Your task to perform on an android device: Open Google Chrome and click the shortcut for Amazon.com Image 0: 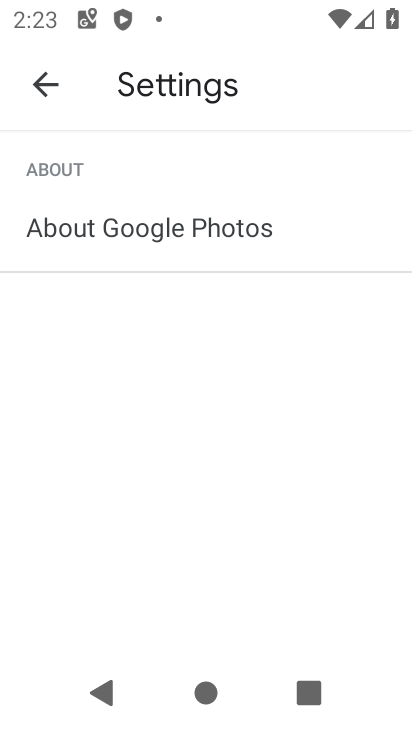
Step 0: press home button
Your task to perform on an android device: Open Google Chrome and click the shortcut for Amazon.com Image 1: 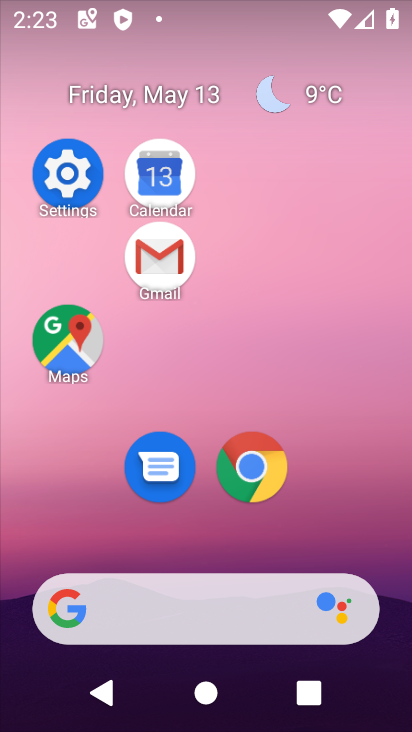
Step 1: click (267, 455)
Your task to perform on an android device: Open Google Chrome and click the shortcut for Amazon.com Image 2: 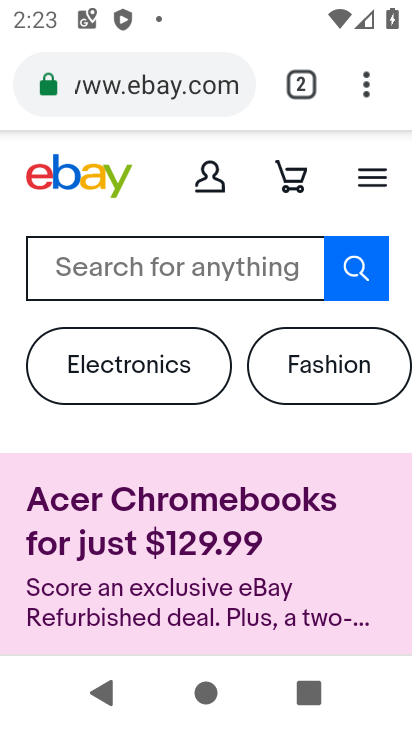
Step 2: click (306, 81)
Your task to perform on an android device: Open Google Chrome and click the shortcut for Amazon.com Image 3: 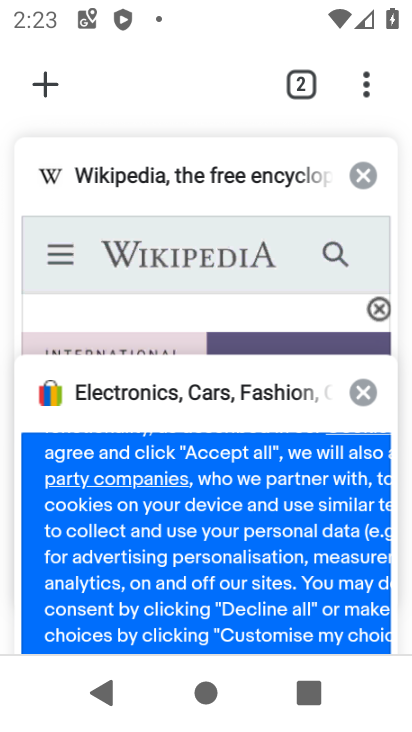
Step 3: click (58, 69)
Your task to perform on an android device: Open Google Chrome and click the shortcut for Amazon.com Image 4: 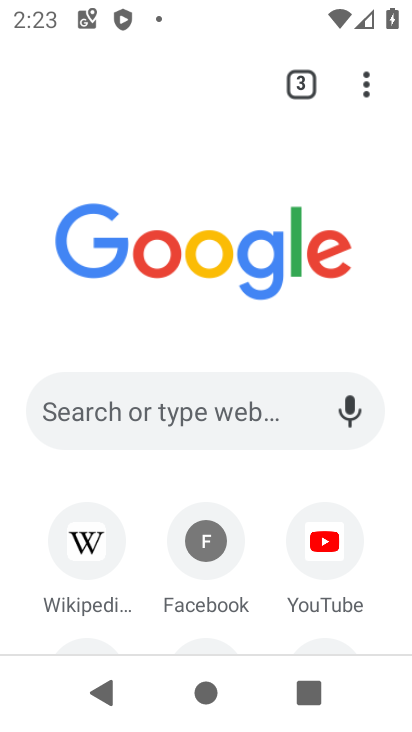
Step 4: drag from (169, 485) to (165, 147)
Your task to perform on an android device: Open Google Chrome and click the shortcut for Amazon.com Image 5: 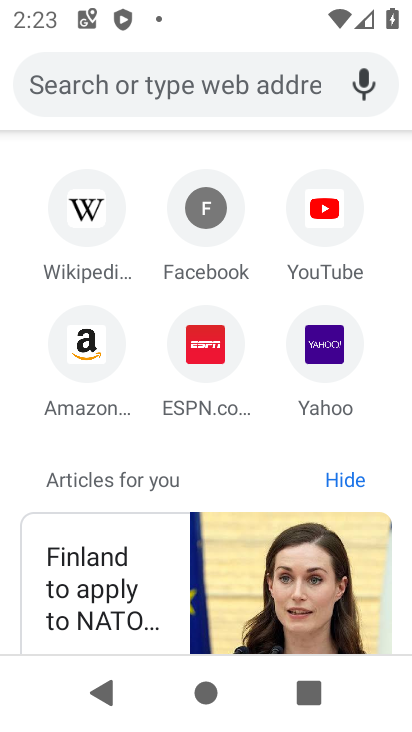
Step 5: click (99, 351)
Your task to perform on an android device: Open Google Chrome and click the shortcut for Amazon.com Image 6: 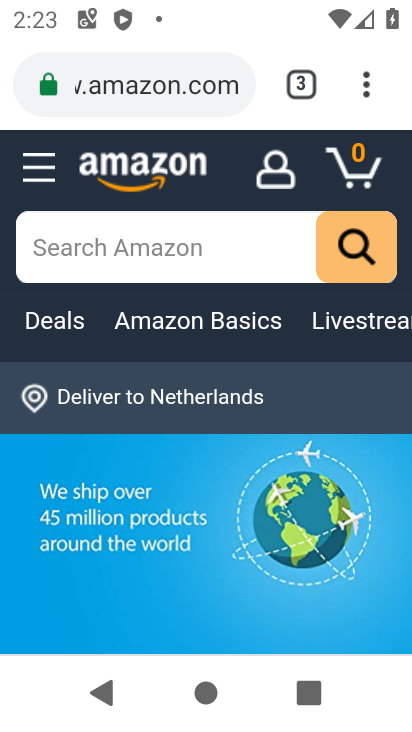
Step 6: click (373, 93)
Your task to perform on an android device: Open Google Chrome and click the shortcut for Amazon.com Image 7: 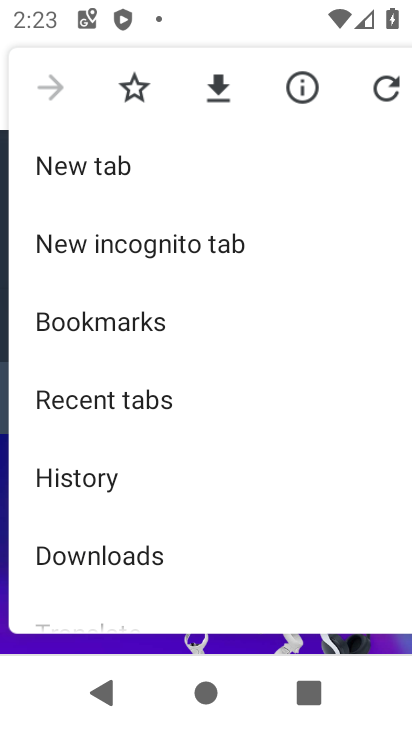
Step 7: drag from (280, 409) to (289, 108)
Your task to perform on an android device: Open Google Chrome and click the shortcut for Amazon.com Image 8: 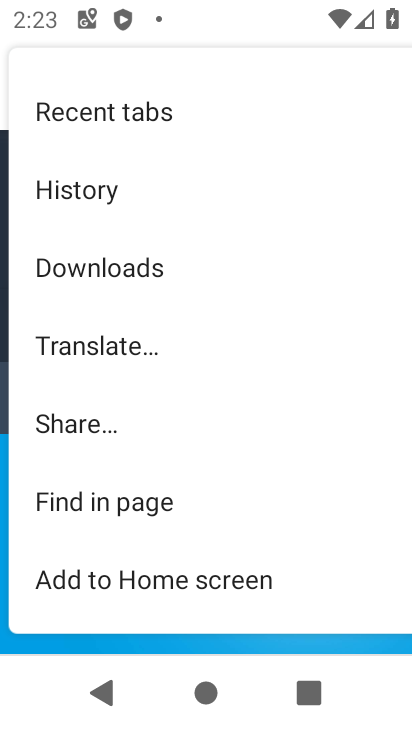
Step 8: click (193, 561)
Your task to perform on an android device: Open Google Chrome and click the shortcut for Amazon.com Image 9: 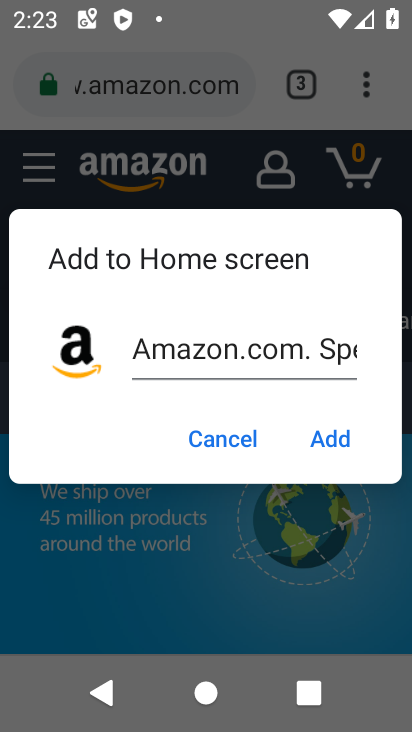
Step 9: click (313, 433)
Your task to perform on an android device: Open Google Chrome and click the shortcut for Amazon.com Image 10: 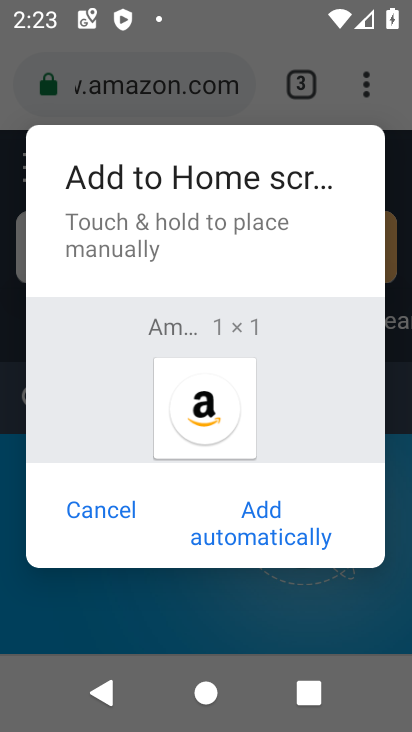
Step 10: click (315, 539)
Your task to perform on an android device: Open Google Chrome and click the shortcut for Amazon.com Image 11: 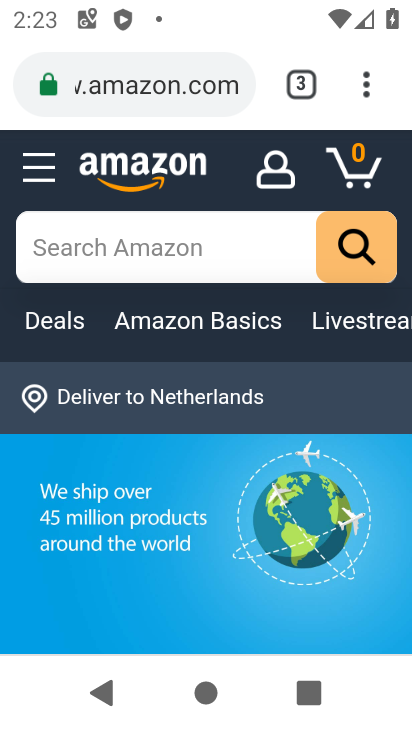
Step 11: task complete